Your task to perform on an android device: Go to network settings Image 0: 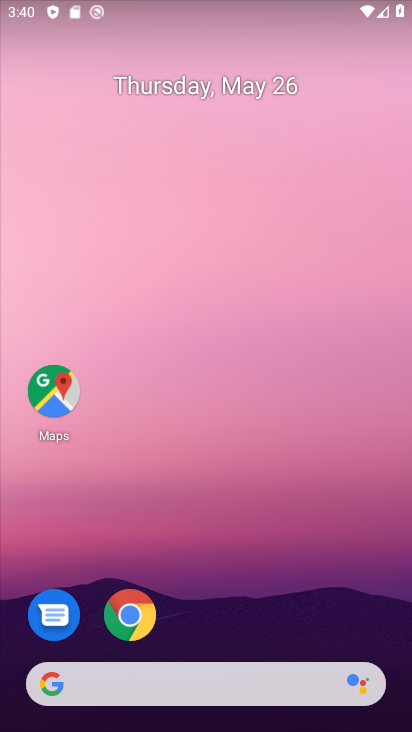
Step 0: drag from (217, 645) to (396, 97)
Your task to perform on an android device: Go to network settings Image 1: 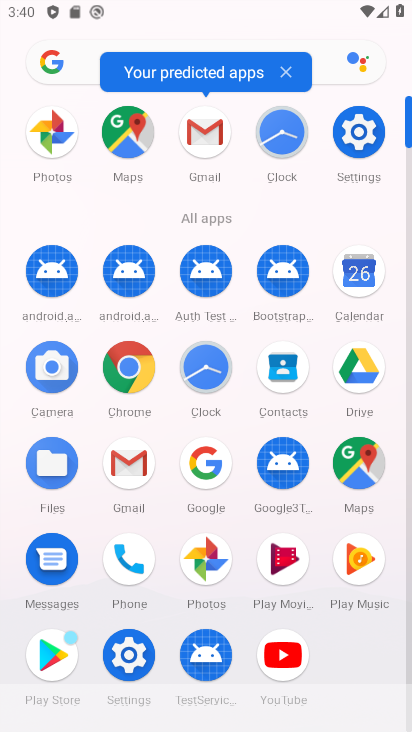
Step 1: click (145, 662)
Your task to perform on an android device: Go to network settings Image 2: 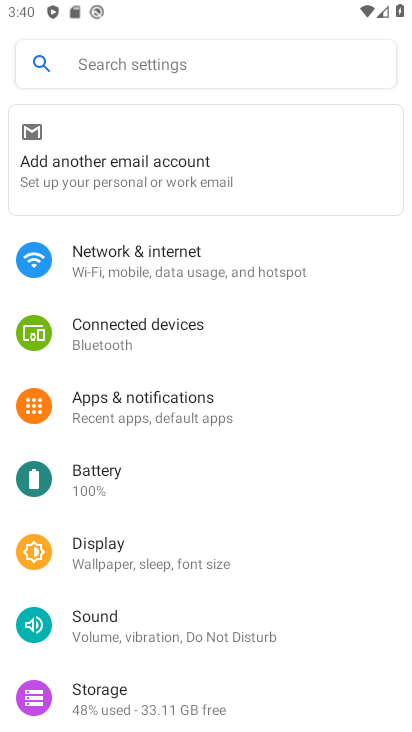
Step 2: click (223, 262)
Your task to perform on an android device: Go to network settings Image 3: 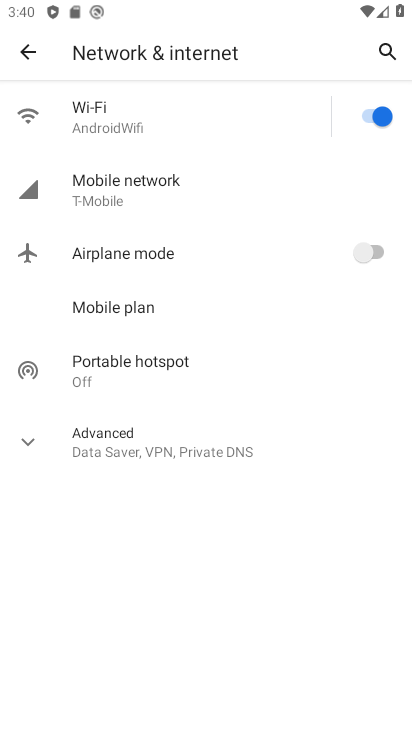
Step 3: click (196, 186)
Your task to perform on an android device: Go to network settings Image 4: 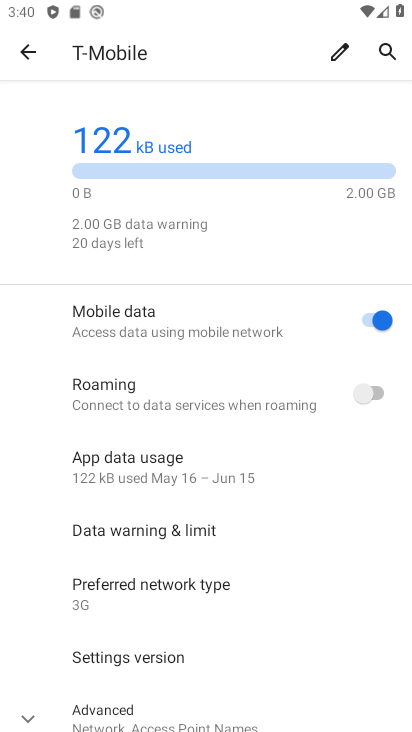
Step 4: task complete